Your task to perform on an android device: turn on notifications settings in the gmail app Image 0: 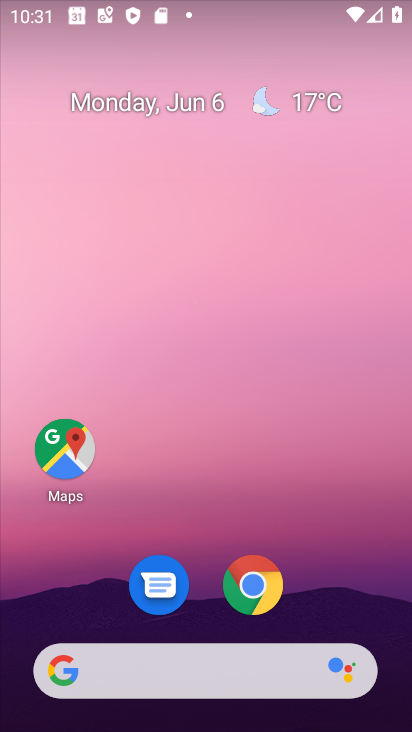
Step 0: drag from (245, 464) to (315, 5)
Your task to perform on an android device: turn on notifications settings in the gmail app Image 1: 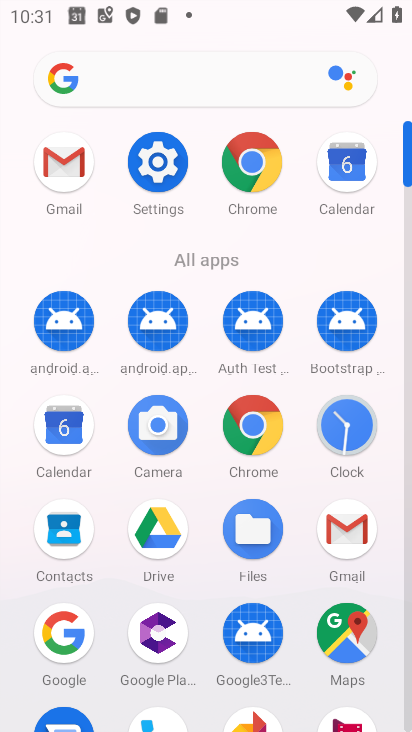
Step 1: click (51, 170)
Your task to perform on an android device: turn on notifications settings in the gmail app Image 2: 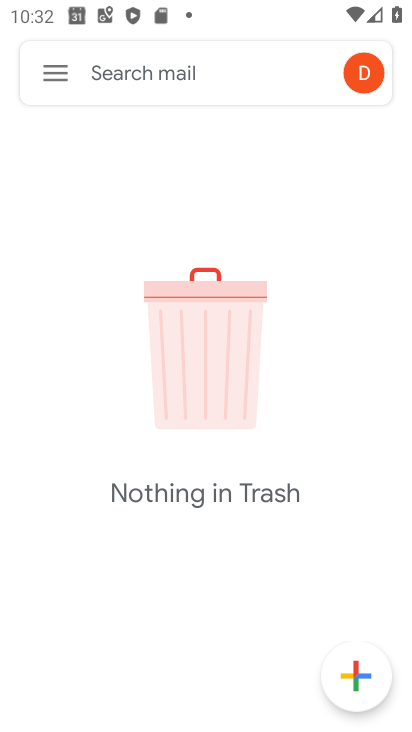
Step 2: click (56, 74)
Your task to perform on an android device: turn on notifications settings in the gmail app Image 3: 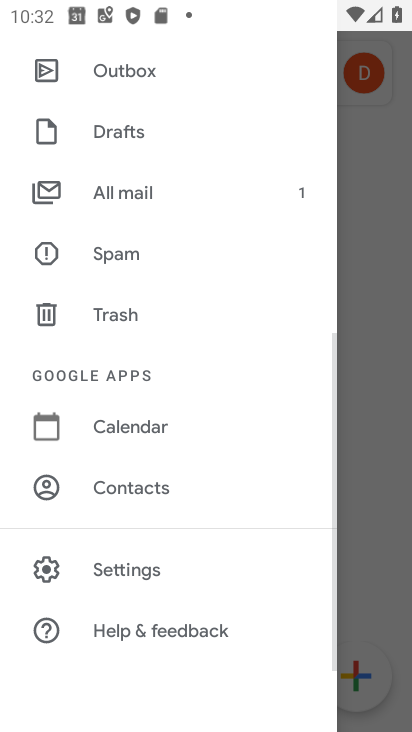
Step 3: click (135, 565)
Your task to perform on an android device: turn on notifications settings in the gmail app Image 4: 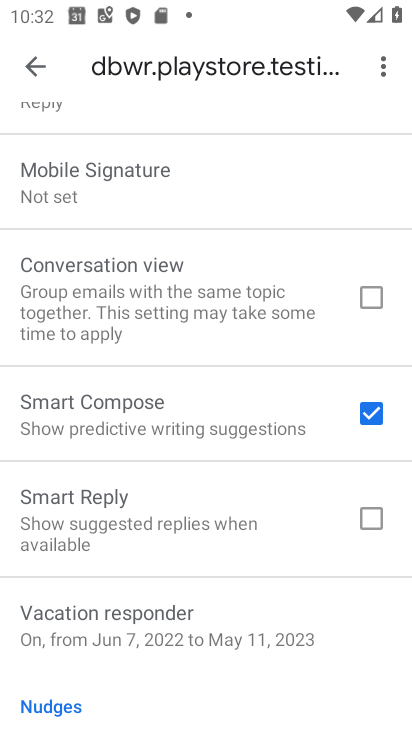
Step 4: drag from (209, 266) to (225, 525)
Your task to perform on an android device: turn on notifications settings in the gmail app Image 5: 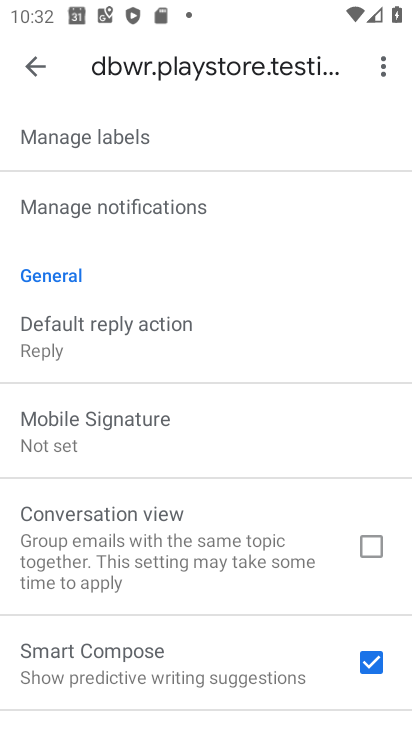
Step 5: click (196, 198)
Your task to perform on an android device: turn on notifications settings in the gmail app Image 6: 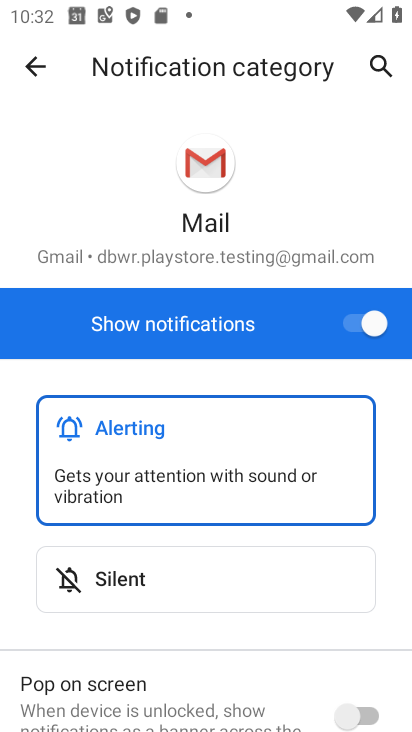
Step 6: task complete